Your task to perform on an android device: Go to Yahoo.com Image 0: 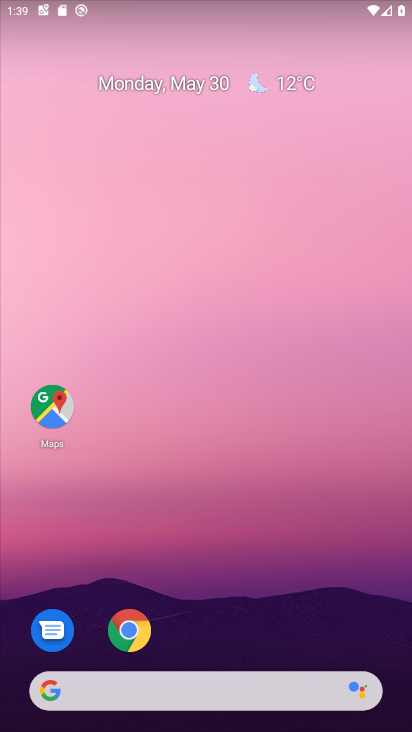
Step 0: click (134, 645)
Your task to perform on an android device: Go to Yahoo.com Image 1: 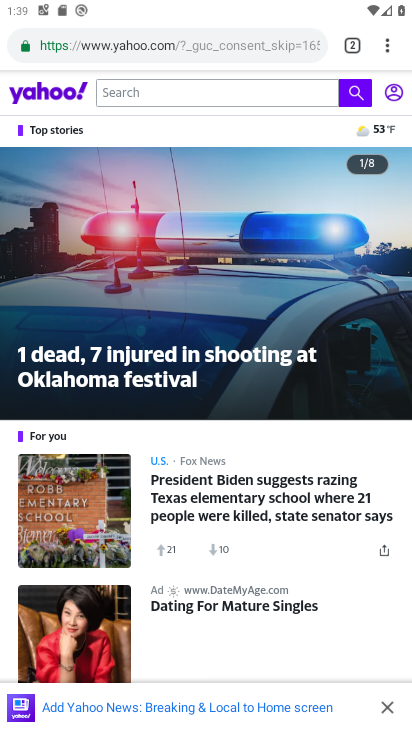
Step 1: task complete